Your task to perform on an android device: toggle translation in the chrome app Image 0: 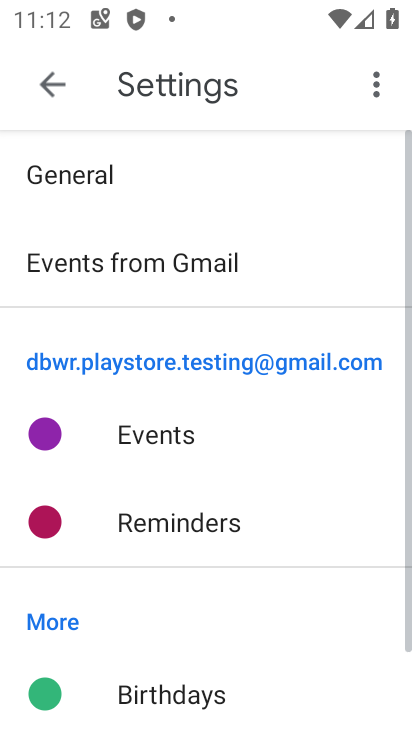
Step 0: press home button
Your task to perform on an android device: toggle translation in the chrome app Image 1: 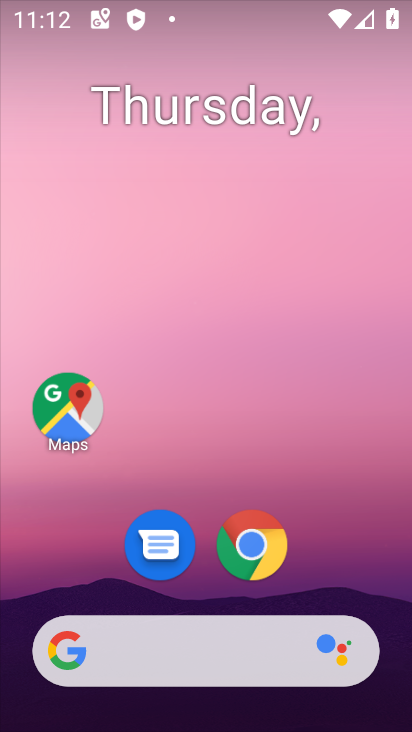
Step 1: click (250, 550)
Your task to perform on an android device: toggle translation in the chrome app Image 2: 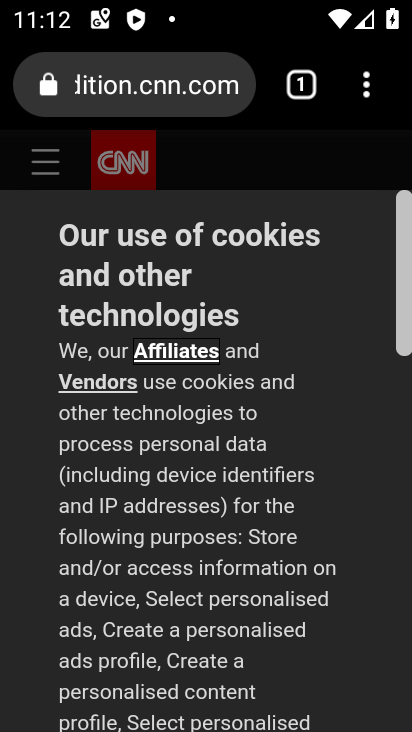
Step 2: click (367, 90)
Your task to perform on an android device: toggle translation in the chrome app Image 3: 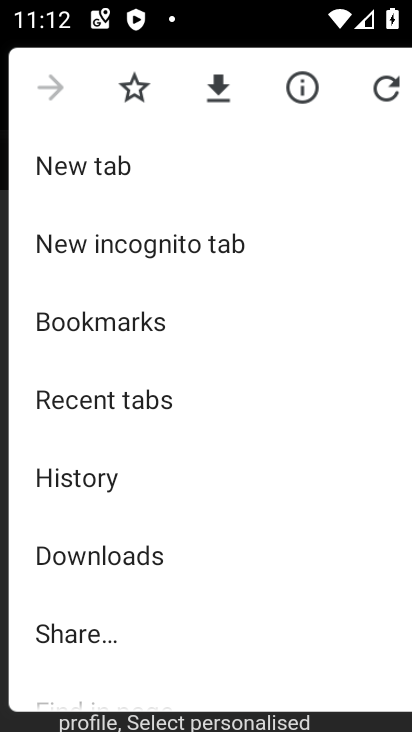
Step 3: drag from (140, 585) to (98, 223)
Your task to perform on an android device: toggle translation in the chrome app Image 4: 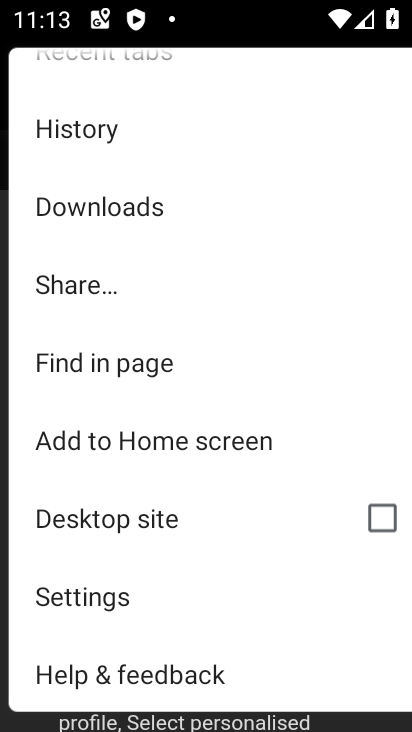
Step 4: click (105, 602)
Your task to perform on an android device: toggle translation in the chrome app Image 5: 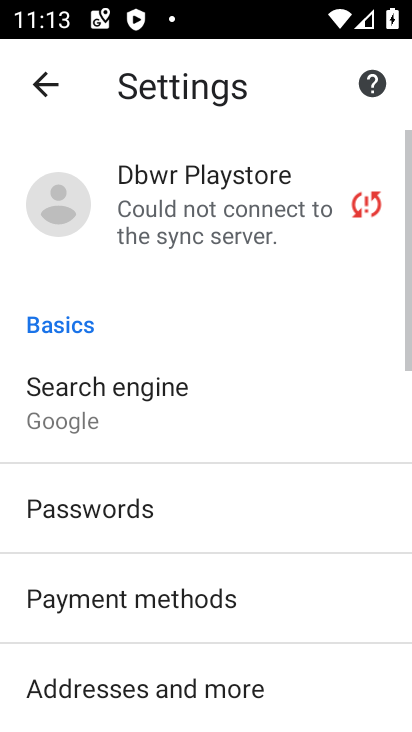
Step 5: drag from (156, 631) to (200, 253)
Your task to perform on an android device: toggle translation in the chrome app Image 6: 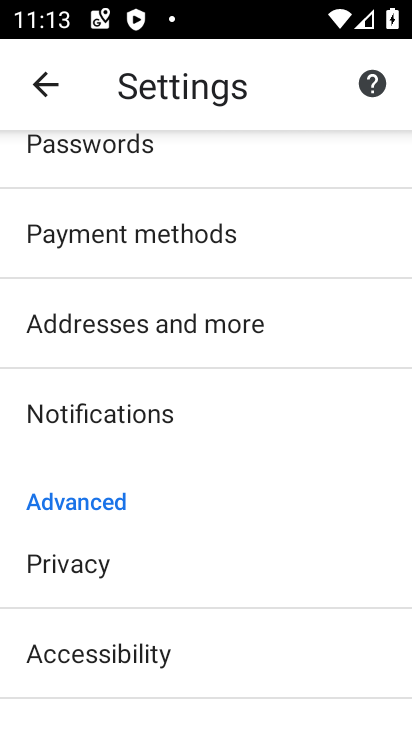
Step 6: drag from (165, 607) to (193, 282)
Your task to perform on an android device: toggle translation in the chrome app Image 7: 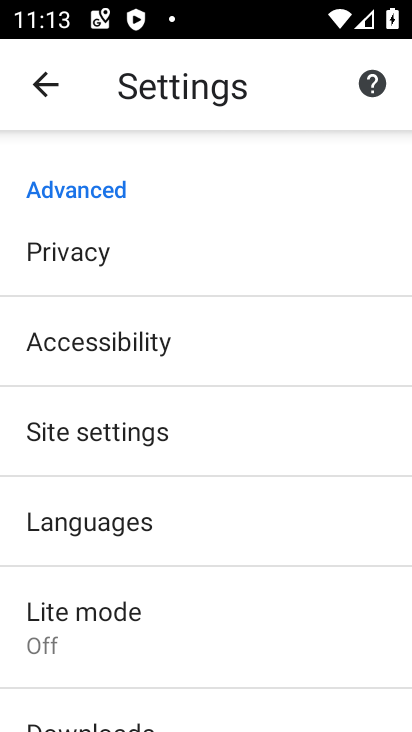
Step 7: click (107, 529)
Your task to perform on an android device: toggle translation in the chrome app Image 8: 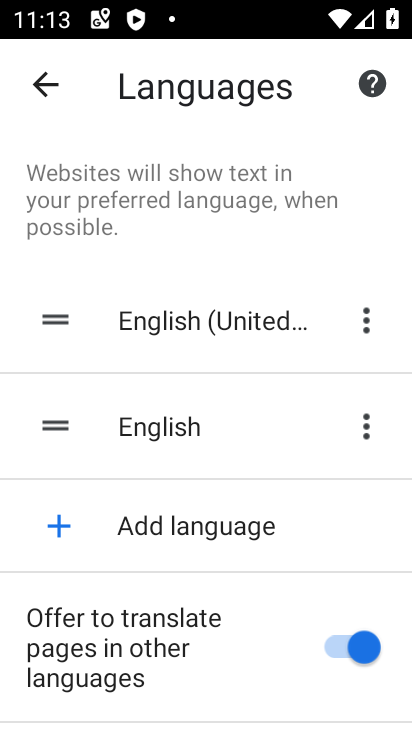
Step 8: click (345, 661)
Your task to perform on an android device: toggle translation in the chrome app Image 9: 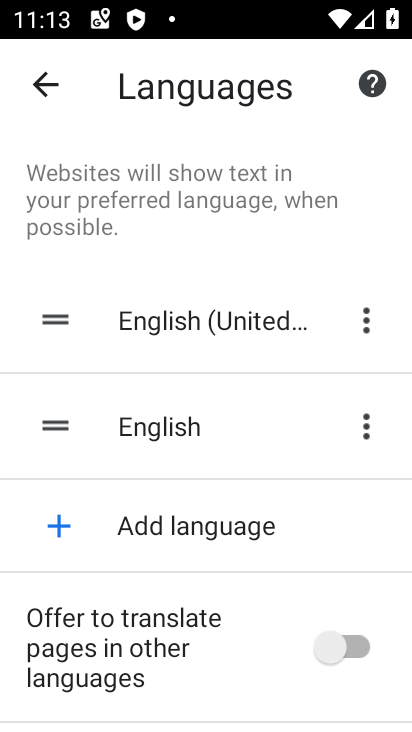
Step 9: task complete